Your task to perform on an android device: turn off airplane mode Image 0: 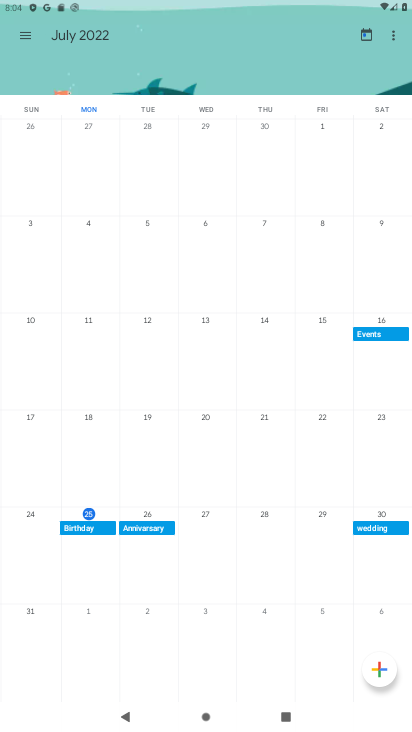
Step 0: drag from (196, 4) to (185, 542)
Your task to perform on an android device: turn off airplane mode Image 1: 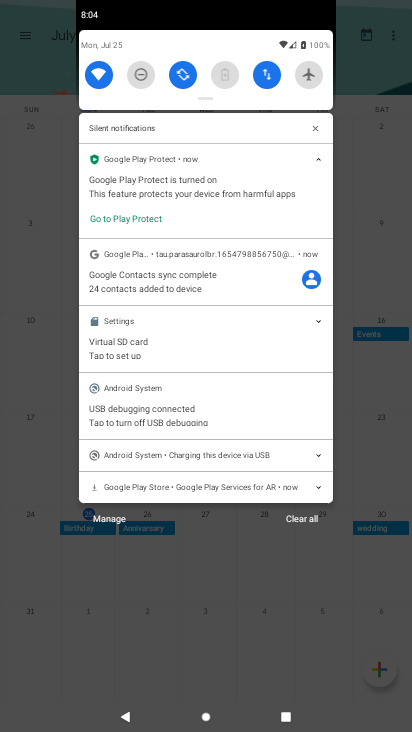
Step 1: task complete